Your task to perform on an android device: When is my next appointment? Image 0: 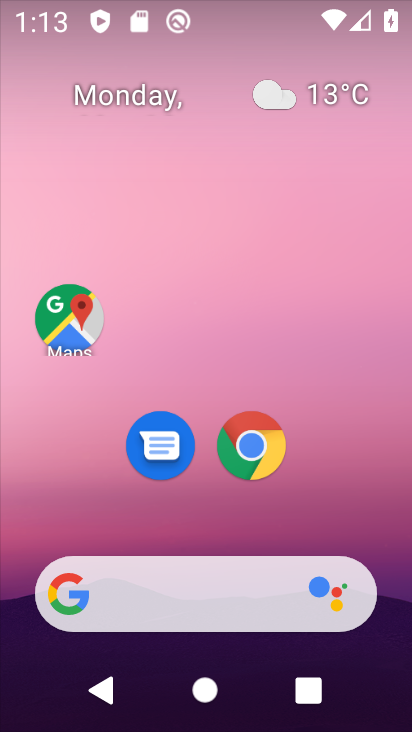
Step 0: drag from (301, 516) to (395, 101)
Your task to perform on an android device: When is my next appointment? Image 1: 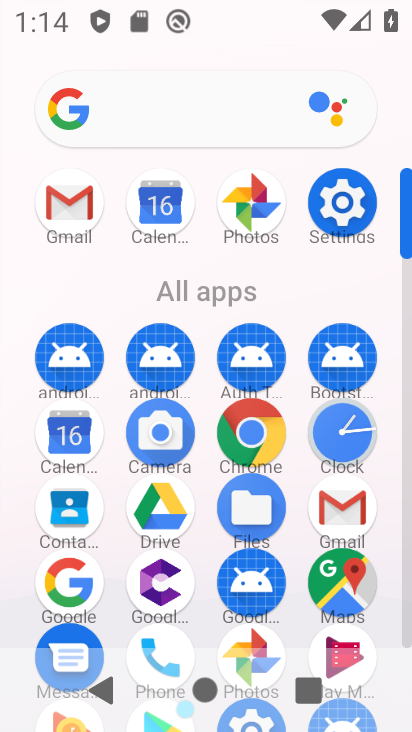
Step 1: click (302, 312)
Your task to perform on an android device: When is my next appointment? Image 2: 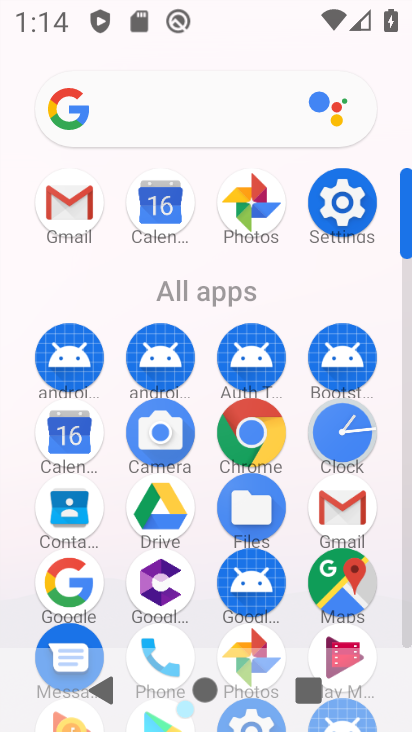
Step 2: click (66, 468)
Your task to perform on an android device: When is my next appointment? Image 3: 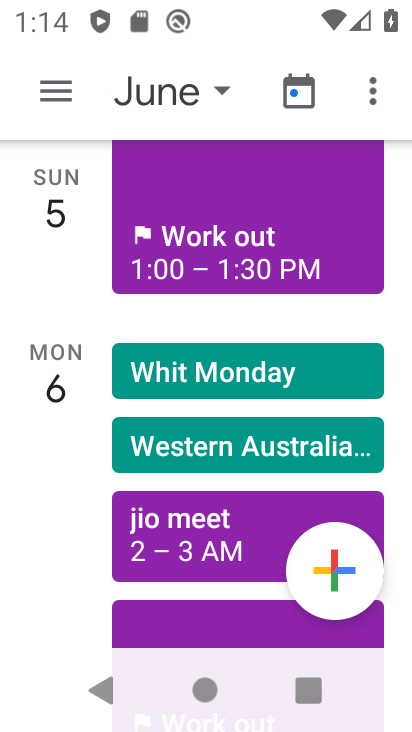
Step 3: task complete